Your task to perform on an android device: Open Google Chrome and open the bookmarks view Image 0: 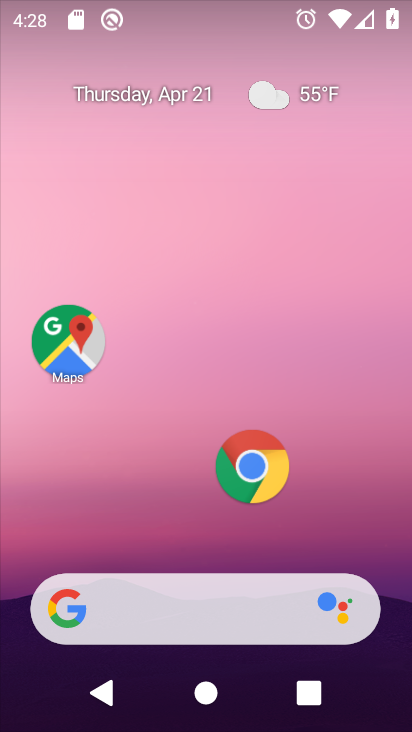
Step 0: click (255, 465)
Your task to perform on an android device: Open Google Chrome and open the bookmarks view Image 1: 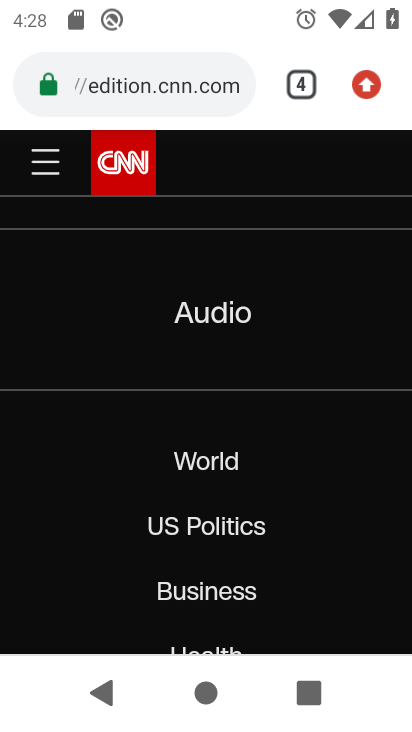
Step 1: click (360, 89)
Your task to perform on an android device: Open Google Chrome and open the bookmarks view Image 2: 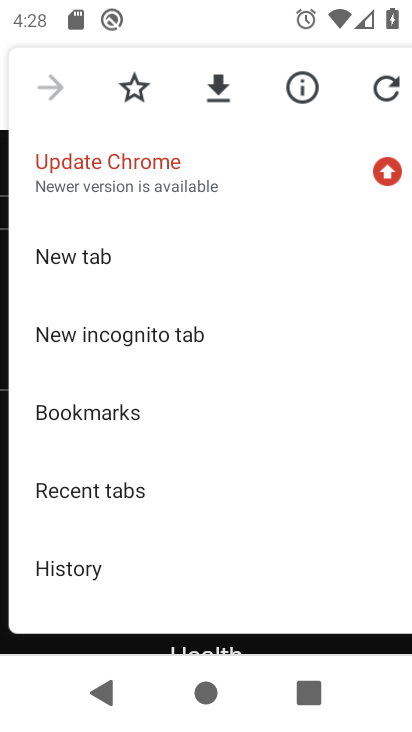
Step 2: click (137, 410)
Your task to perform on an android device: Open Google Chrome and open the bookmarks view Image 3: 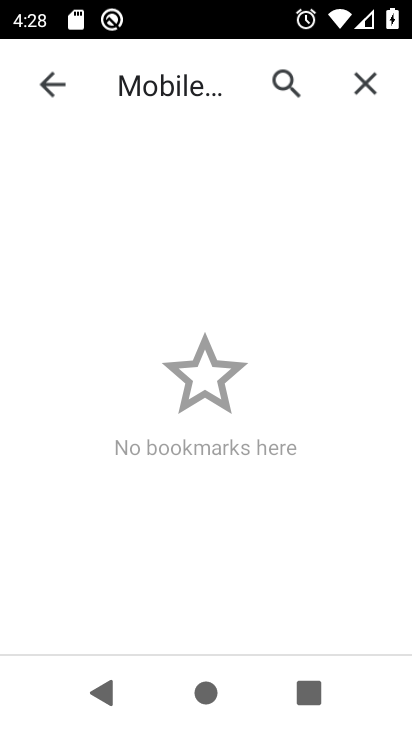
Step 3: task complete